Your task to perform on an android device: open app "Chime – Mobile Banking" (install if not already installed) and go to login screen Image 0: 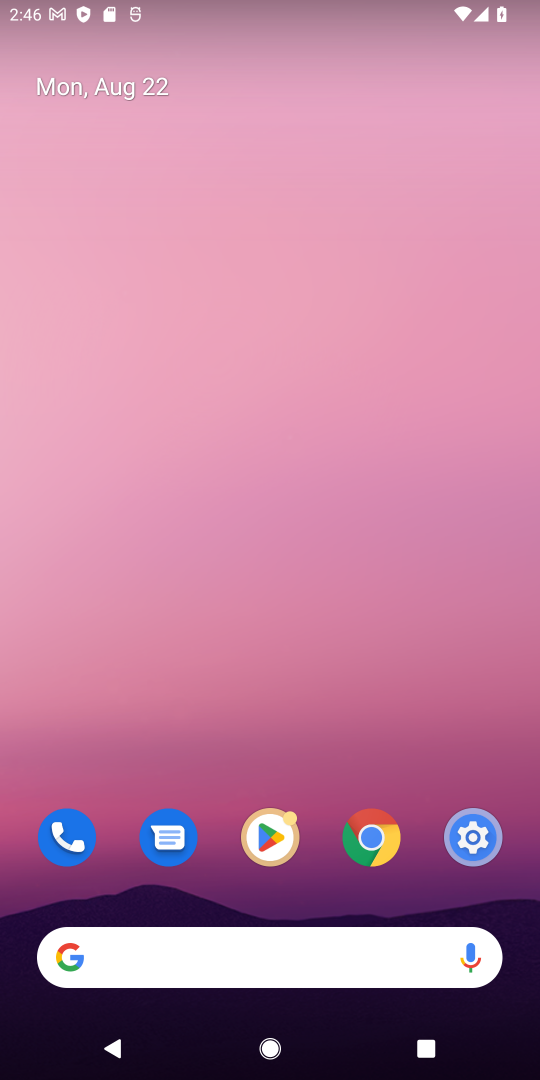
Step 0: drag from (448, 621) to (243, 30)
Your task to perform on an android device: open app "Chime – Mobile Banking" (install if not already installed) and go to login screen Image 1: 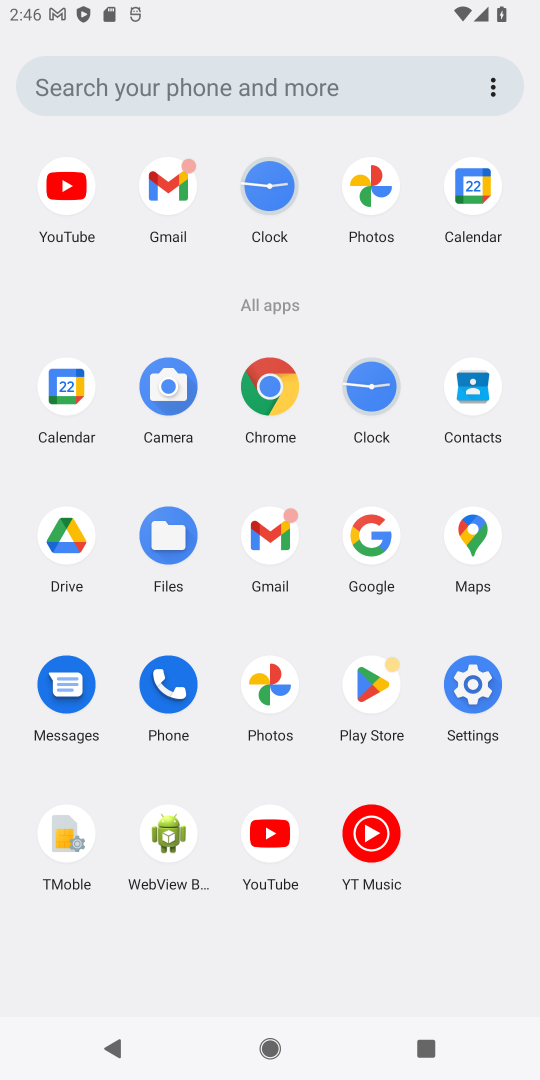
Step 1: click (372, 688)
Your task to perform on an android device: open app "Chime – Mobile Banking" (install if not already installed) and go to login screen Image 2: 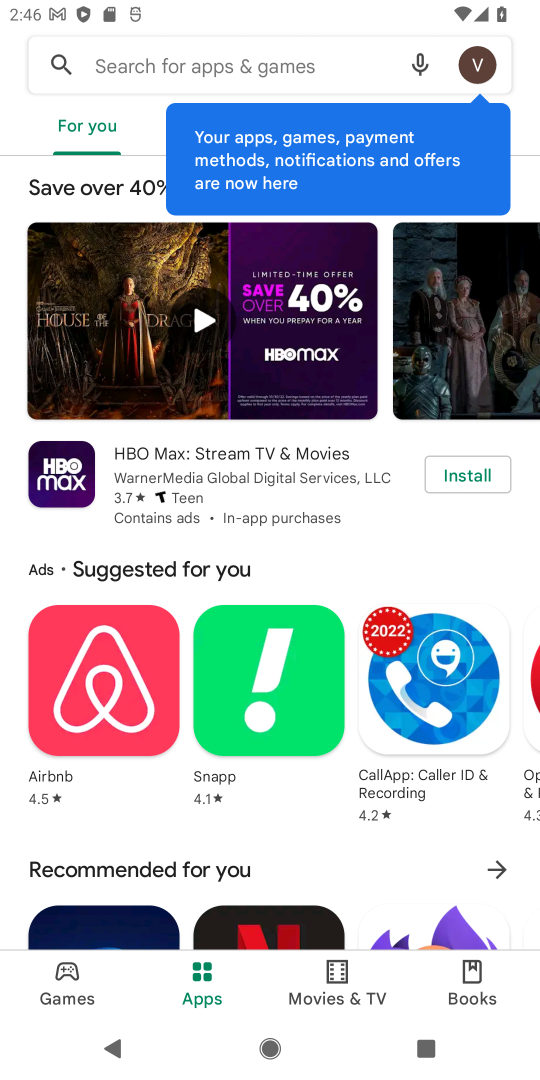
Step 2: click (227, 73)
Your task to perform on an android device: open app "Chime – Mobile Banking" (install if not already installed) and go to login screen Image 3: 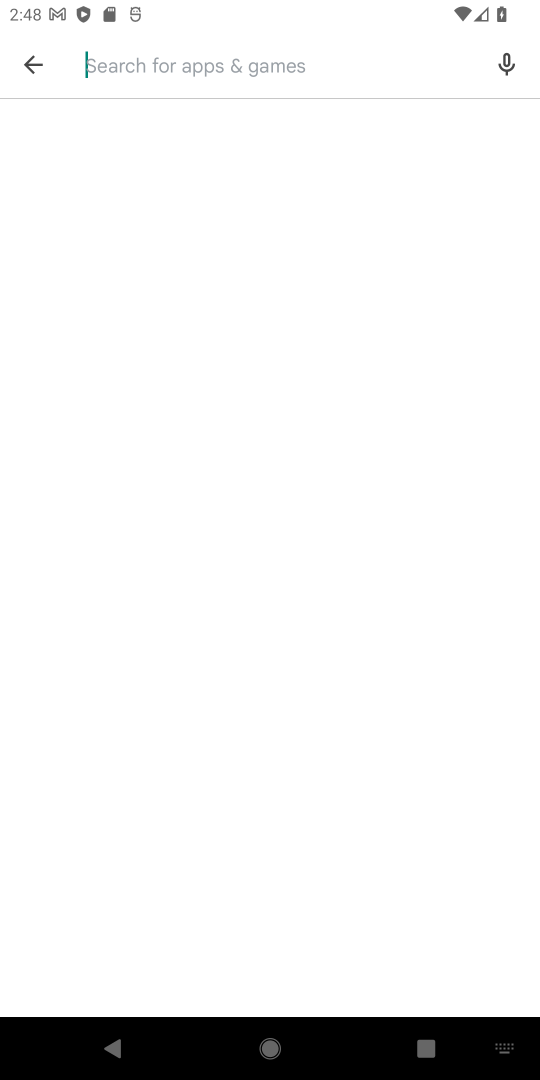
Step 3: type "Chime – Mobile Banking"
Your task to perform on an android device: open app "Chime – Mobile Banking" (install if not already installed) and go to login screen Image 4: 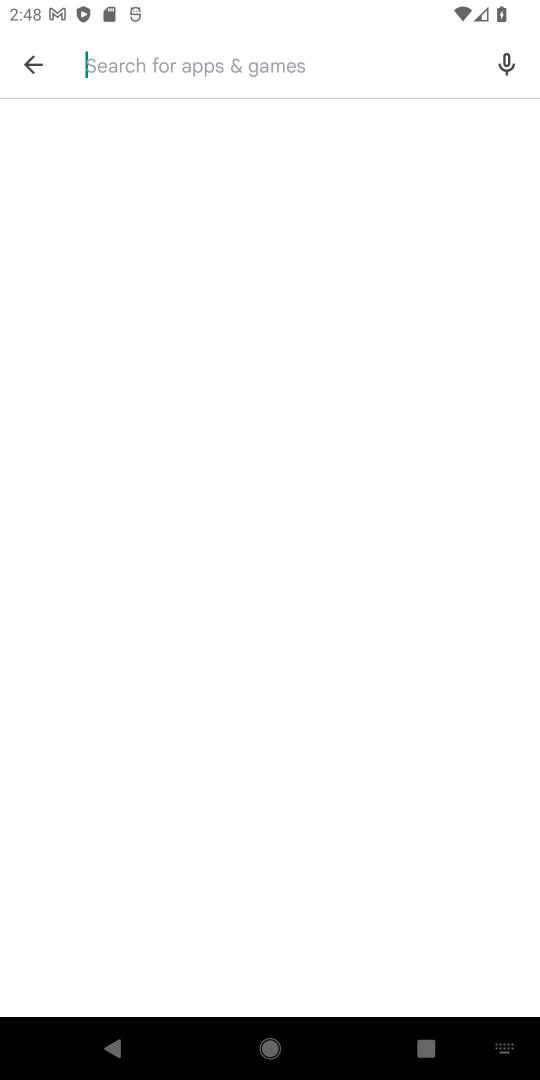
Step 4: task complete